Your task to perform on an android device: Open Youtube and go to "Your channel" Image 0: 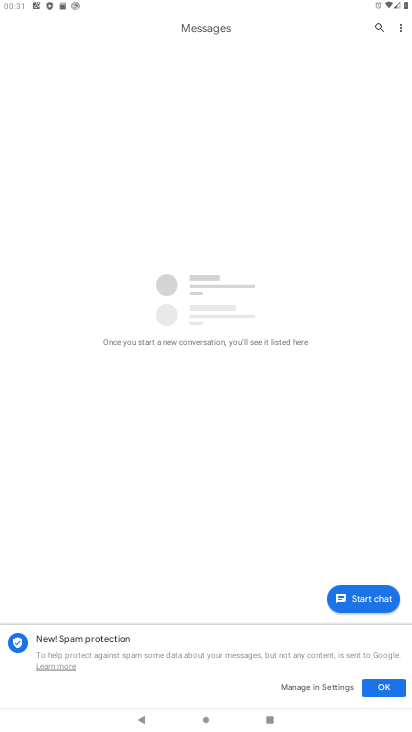
Step 0: press home button
Your task to perform on an android device: Open Youtube and go to "Your channel" Image 1: 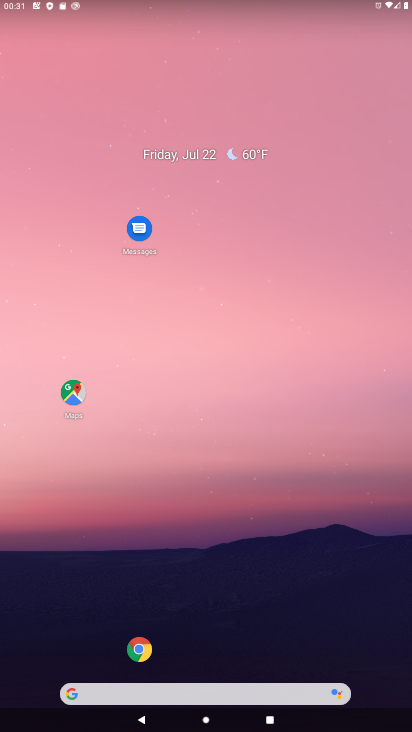
Step 1: drag from (102, 699) to (237, 18)
Your task to perform on an android device: Open Youtube and go to "Your channel" Image 2: 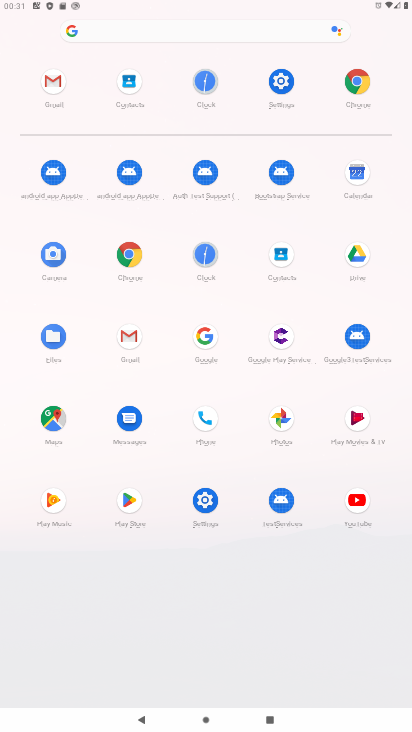
Step 2: click (359, 515)
Your task to perform on an android device: Open Youtube and go to "Your channel" Image 3: 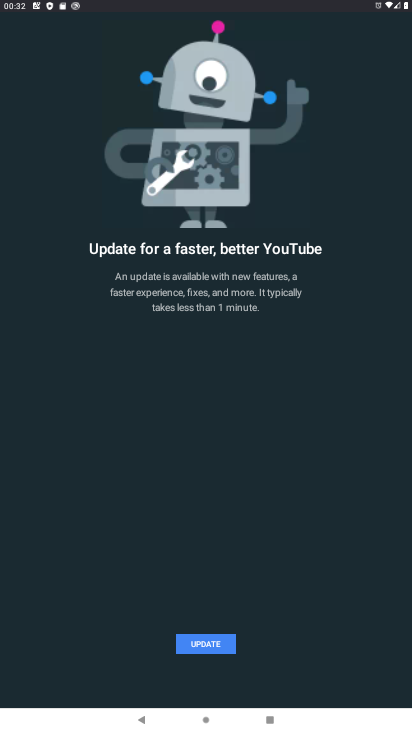
Step 3: click (203, 638)
Your task to perform on an android device: Open Youtube and go to "Your channel" Image 4: 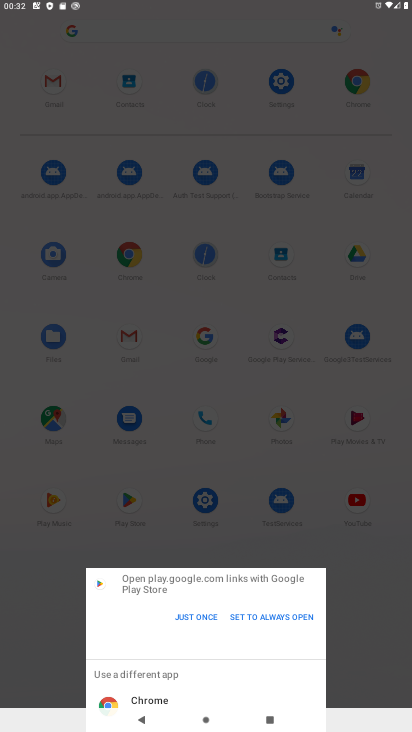
Step 4: click (187, 611)
Your task to perform on an android device: Open Youtube and go to "Your channel" Image 5: 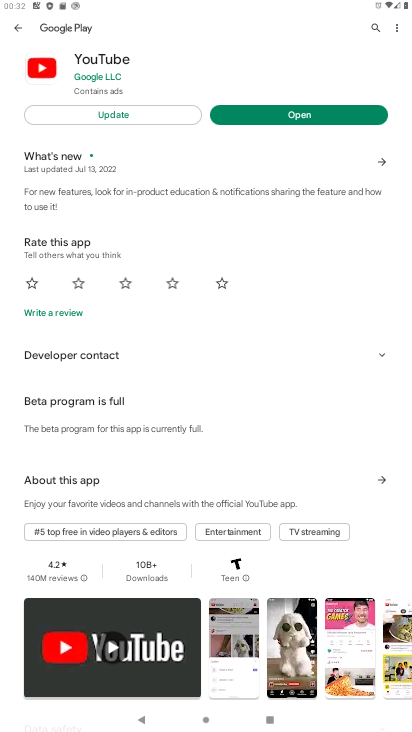
Step 5: click (286, 111)
Your task to perform on an android device: Open Youtube and go to "Your channel" Image 6: 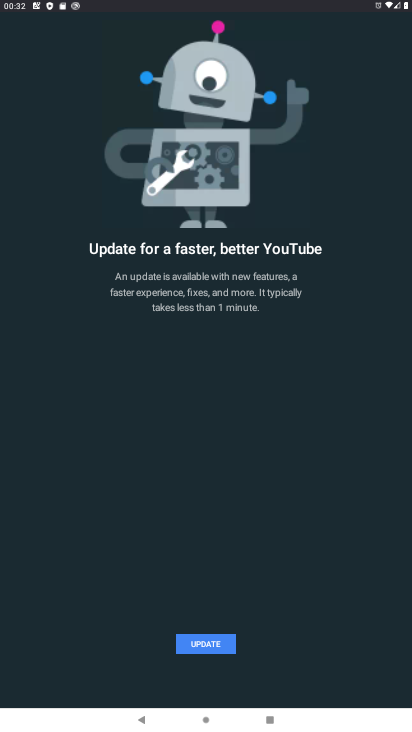
Step 6: task complete